Your task to perform on an android device: Go to Wikipedia Image 0: 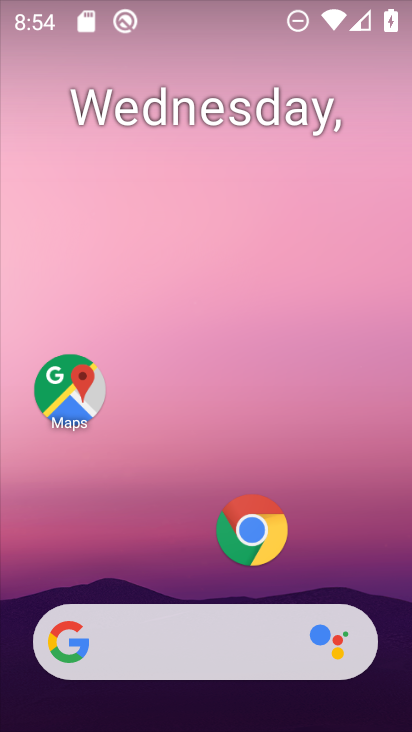
Step 0: click (249, 522)
Your task to perform on an android device: Go to Wikipedia Image 1: 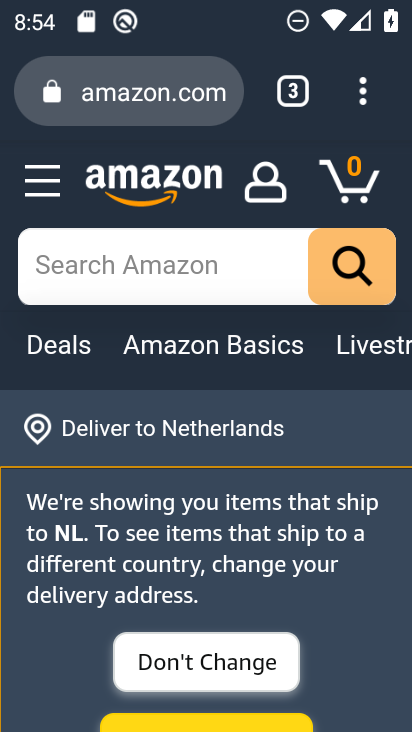
Step 1: click (290, 73)
Your task to perform on an android device: Go to Wikipedia Image 2: 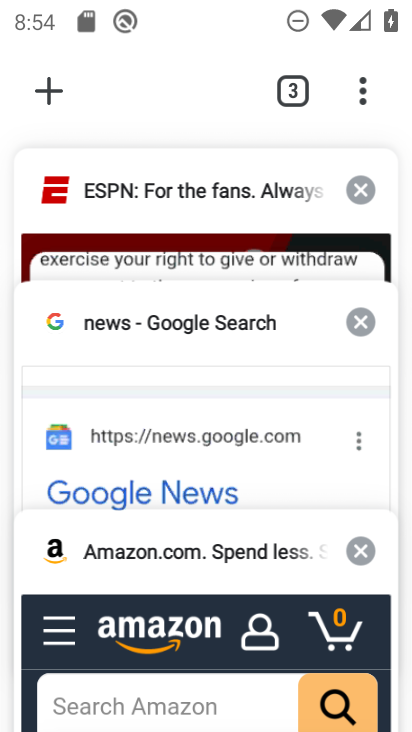
Step 2: click (54, 84)
Your task to perform on an android device: Go to Wikipedia Image 3: 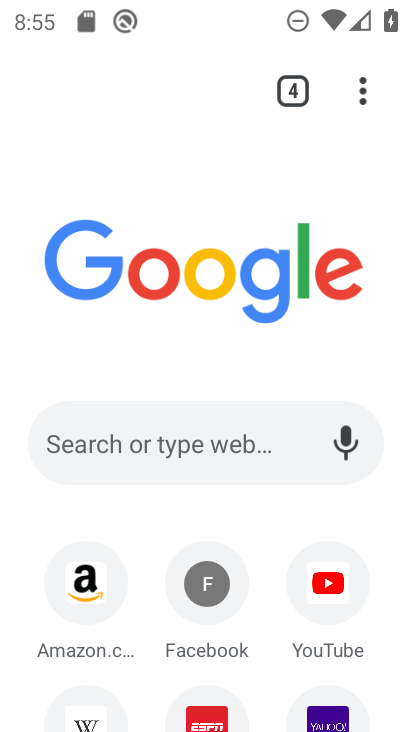
Step 3: click (93, 723)
Your task to perform on an android device: Go to Wikipedia Image 4: 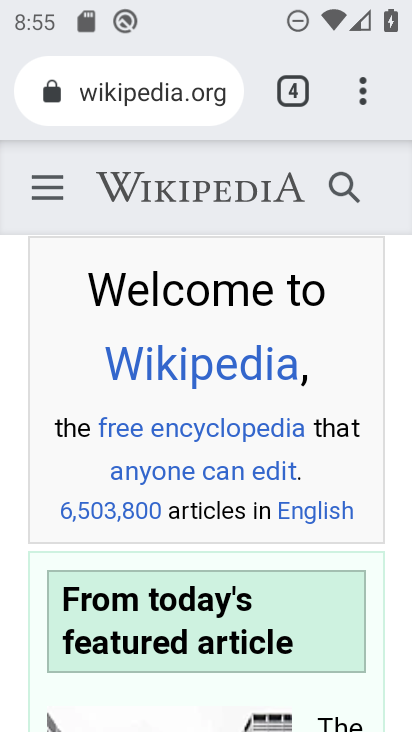
Step 4: task complete